Your task to perform on an android device: set the stopwatch Image 0: 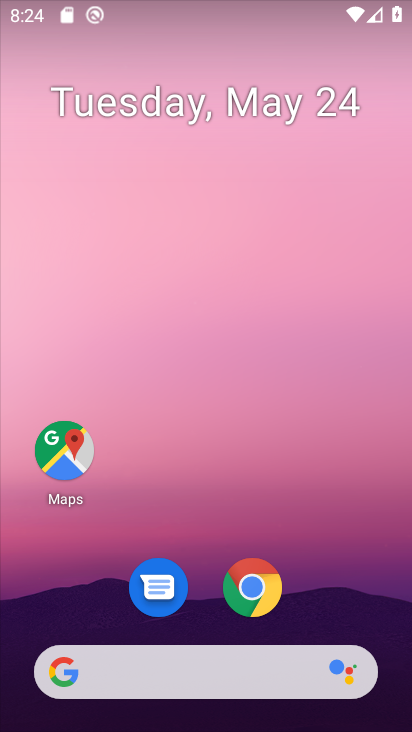
Step 0: drag from (345, 588) to (226, 249)
Your task to perform on an android device: set the stopwatch Image 1: 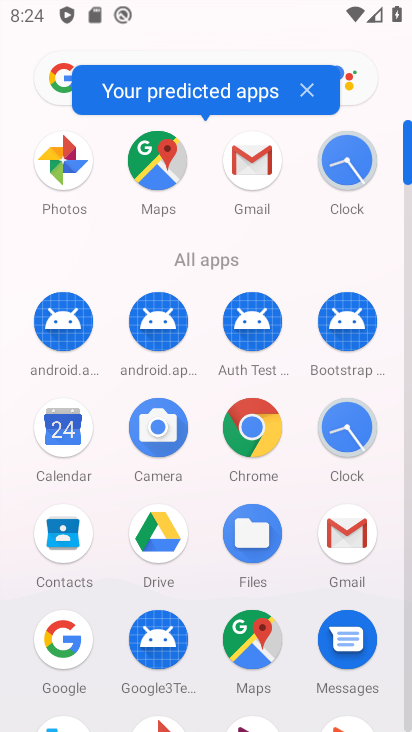
Step 1: click (347, 160)
Your task to perform on an android device: set the stopwatch Image 2: 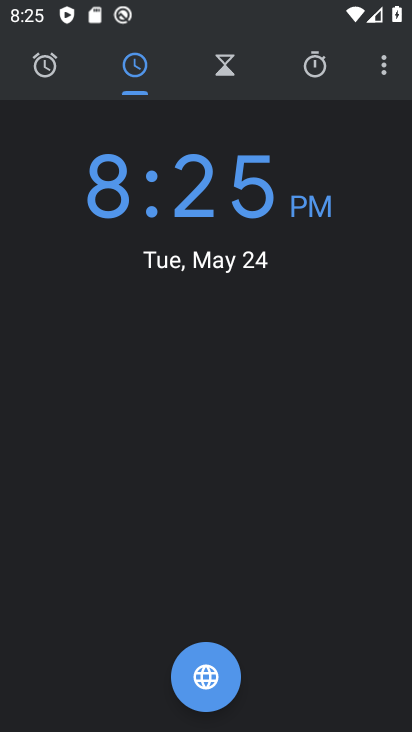
Step 2: click (315, 68)
Your task to perform on an android device: set the stopwatch Image 3: 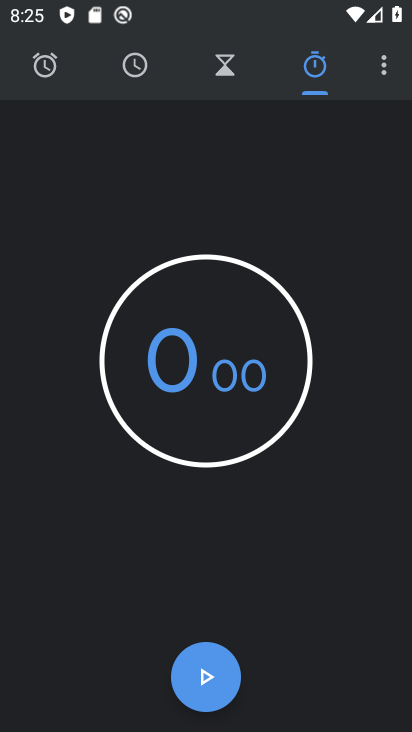
Step 3: click (205, 673)
Your task to perform on an android device: set the stopwatch Image 4: 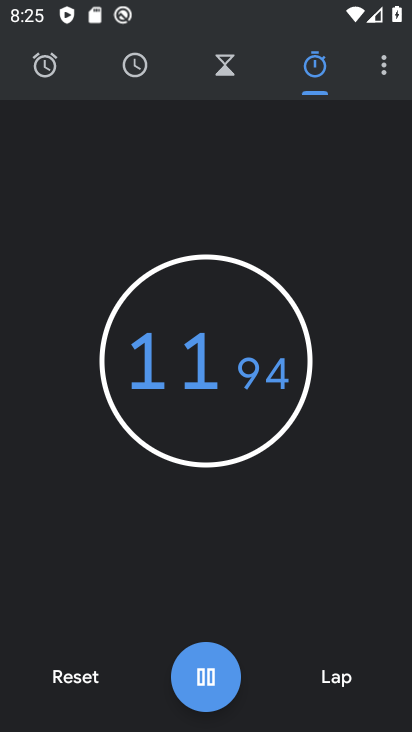
Step 4: task complete